Your task to perform on an android device: turn off smart reply in the gmail app Image 0: 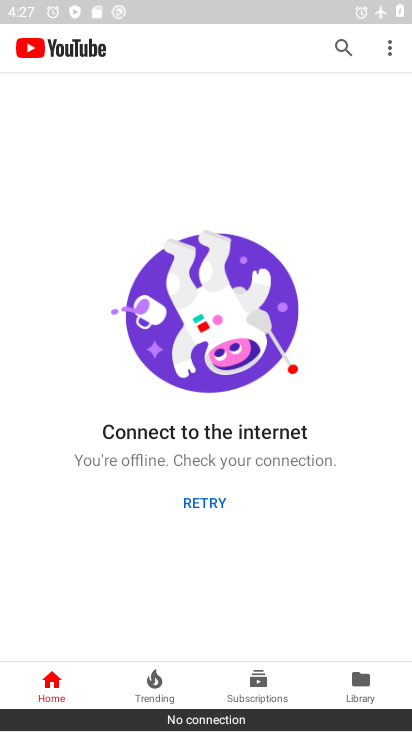
Step 0: press back button
Your task to perform on an android device: turn off smart reply in the gmail app Image 1: 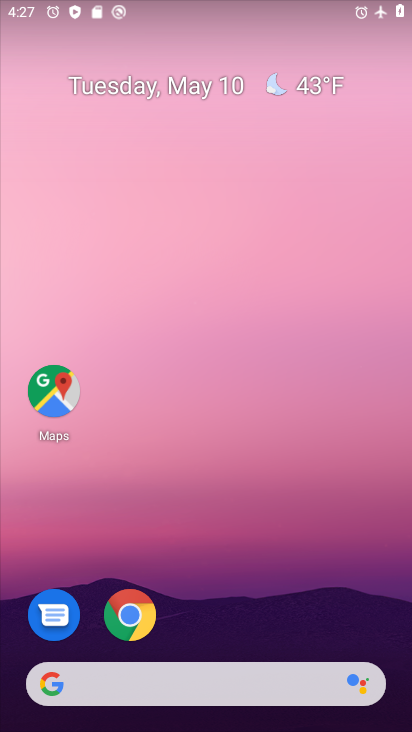
Step 1: drag from (298, 588) to (282, 23)
Your task to perform on an android device: turn off smart reply in the gmail app Image 2: 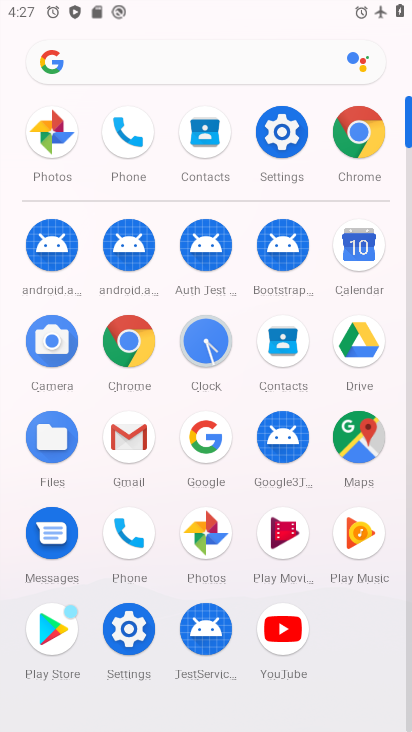
Step 2: drag from (7, 637) to (19, 319)
Your task to perform on an android device: turn off smart reply in the gmail app Image 3: 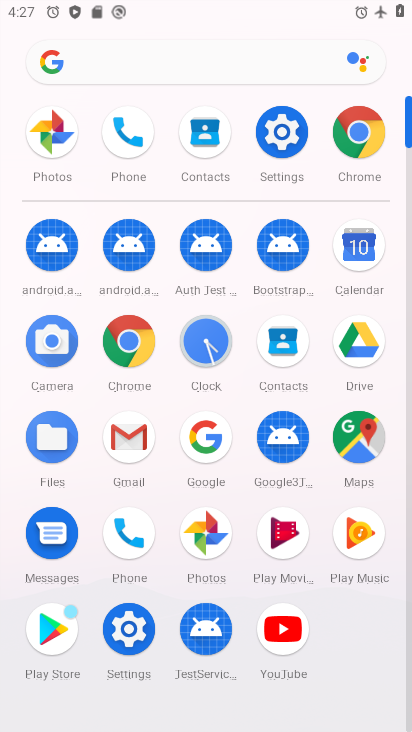
Step 3: click (128, 435)
Your task to perform on an android device: turn off smart reply in the gmail app Image 4: 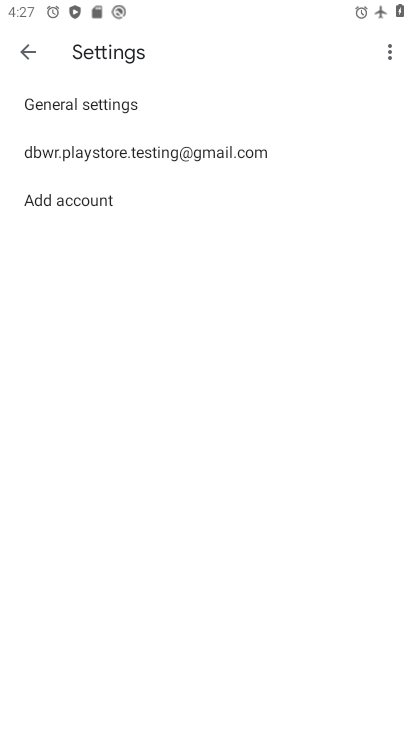
Step 4: click (31, 55)
Your task to perform on an android device: turn off smart reply in the gmail app Image 5: 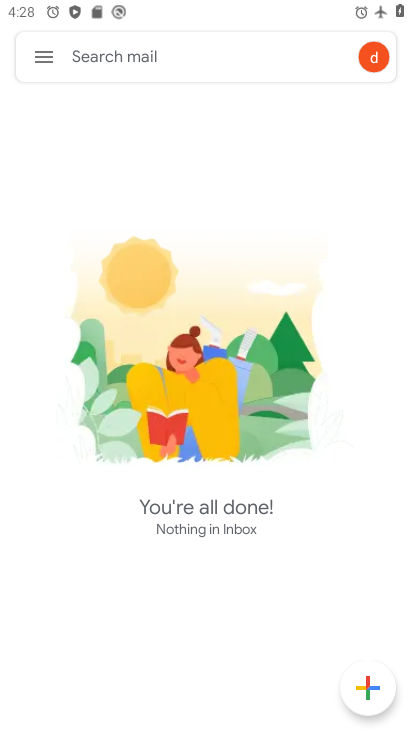
Step 5: click (40, 52)
Your task to perform on an android device: turn off smart reply in the gmail app Image 6: 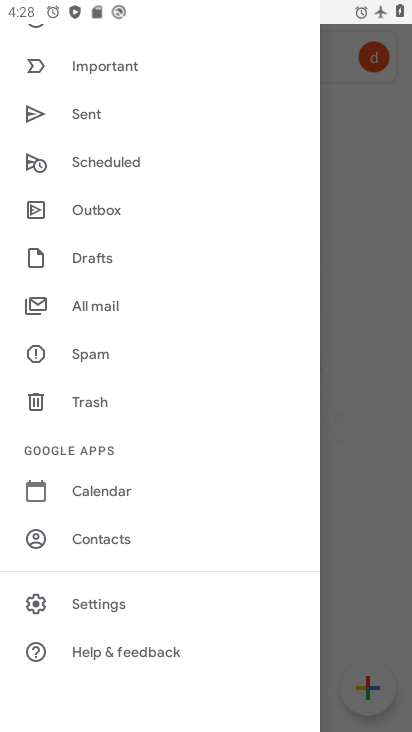
Step 6: click (90, 608)
Your task to perform on an android device: turn off smart reply in the gmail app Image 7: 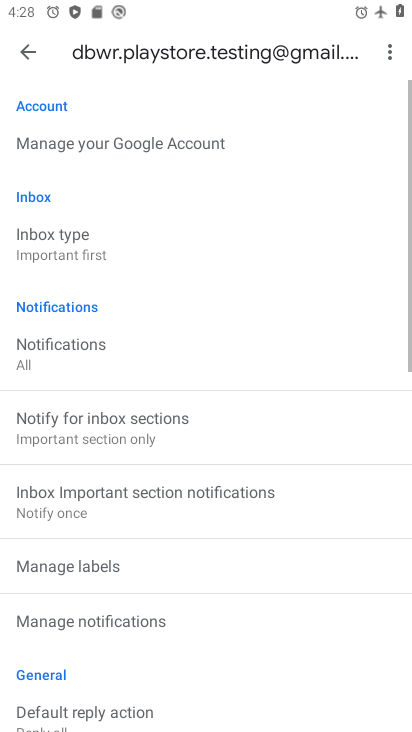
Step 7: drag from (248, 593) to (248, 201)
Your task to perform on an android device: turn off smart reply in the gmail app Image 8: 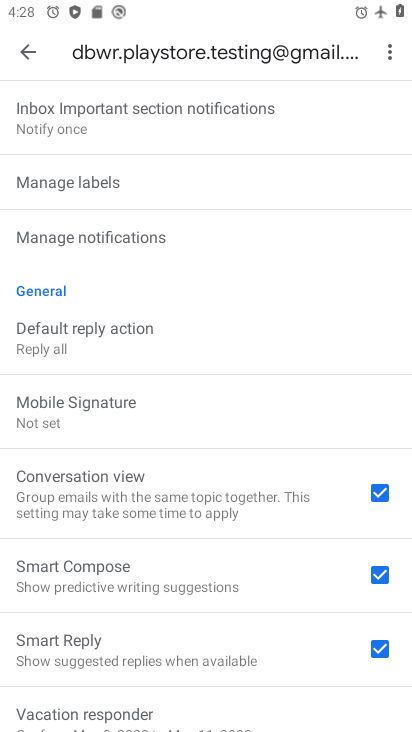
Step 8: drag from (216, 613) to (220, 244)
Your task to perform on an android device: turn off smart reply in the gmail app Image 9: 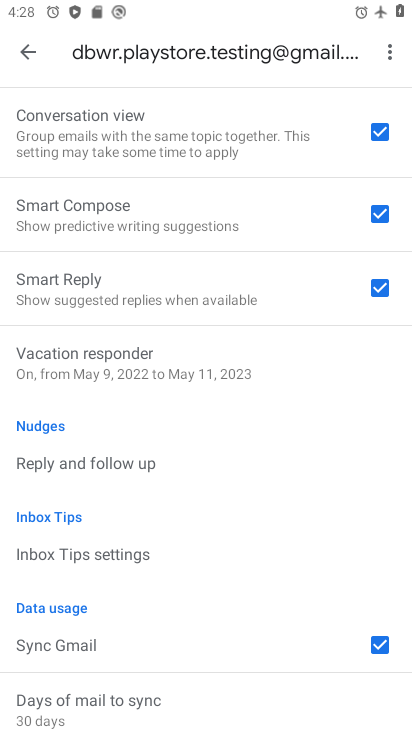
Step 9: drag from (212, 601) to (240, 217)
Your task to perform on an android device: turn off smart reply in the gmail app Image 10: 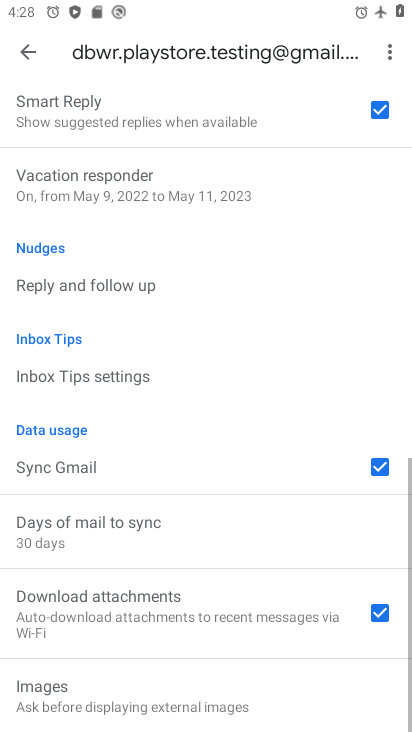
Step 10: drag from (236, 600) to (257, 177)
Your task to perform on an android device: turn off smart reply in the gmail app Image 11: 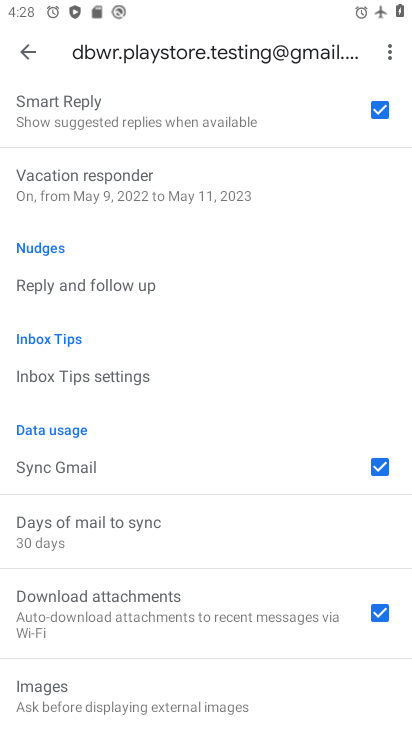
Step 11: drag from (197, 555) to (209, 230)
Your task to perform on an android device: turn off smart reply in the gmail app Image 12: 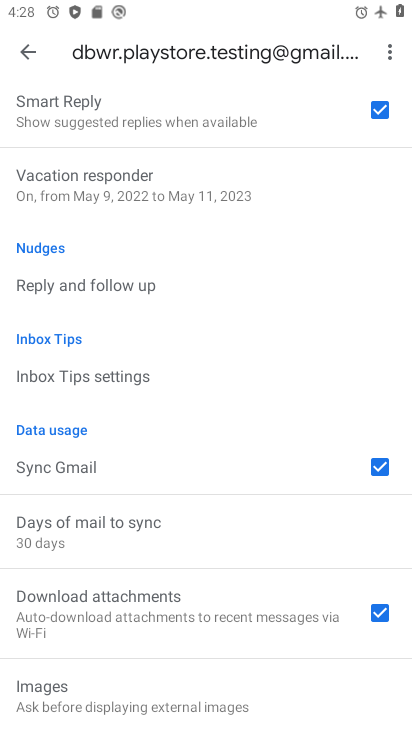
Step 12: drag from (171, 583) to (241, 198)
Your task to perform on an android device: turn off smart reply in the gmail app Image 13: 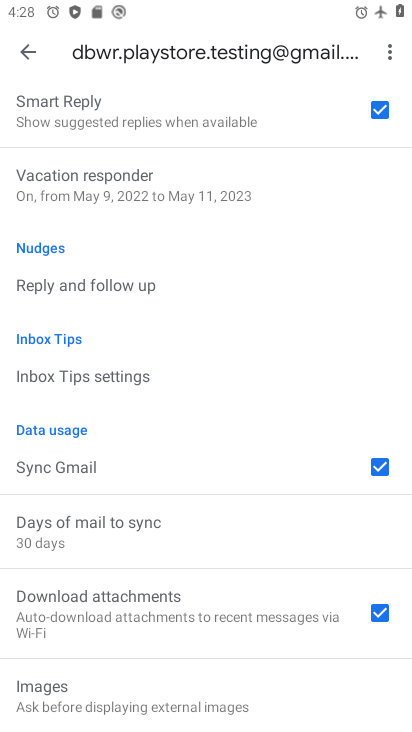
Step 13: drag from (230, 226) to (230, 513)
Your task to perform on an android device: turn off smart reply in the gmail app Image 14: 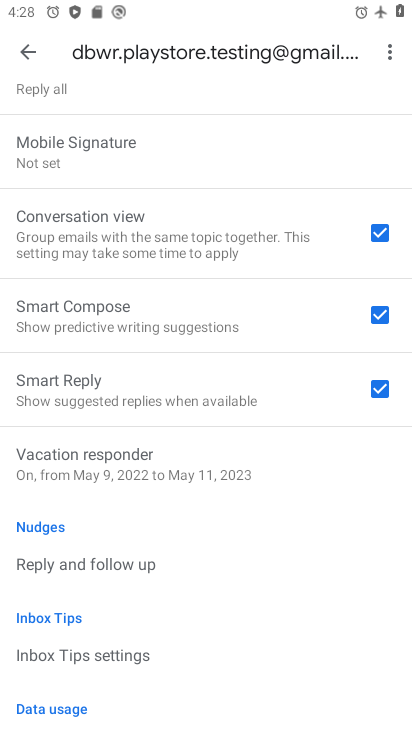
Step 14: click (379, 390)
Your task to perform on an android device: turn off smart reply in the gmail app Image 15: 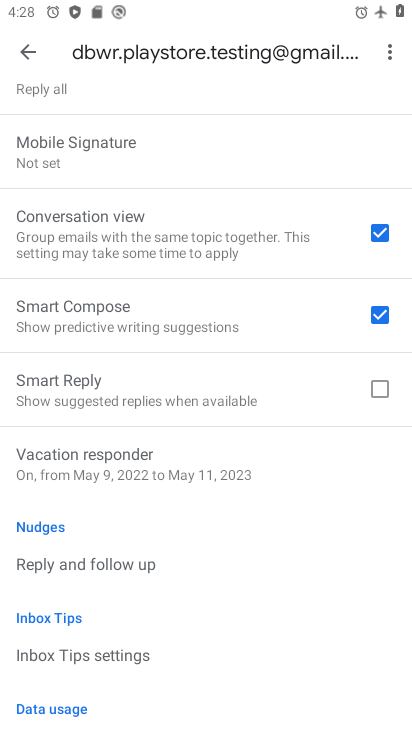
Step 15: task complete